Your task to perform on an android device: Open location settings Image 0: 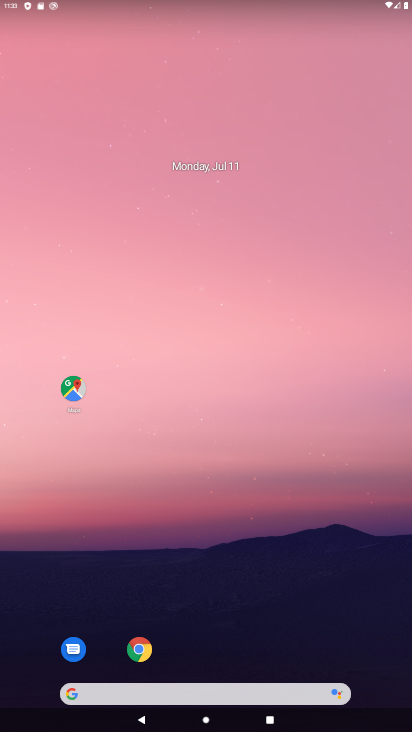
Step 0: drag from (303, 597) to (405, 46)
Your task to perform on an android device: Open location settings Image 1: 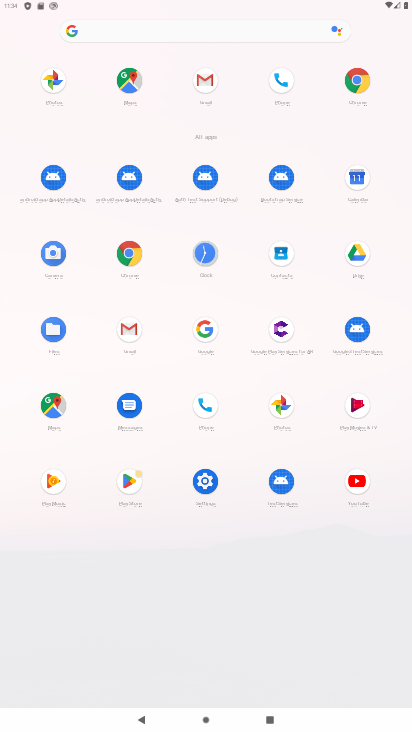
Step 1: click (203, 489)
Your task to perform on an android device: Open location settings Image 2: 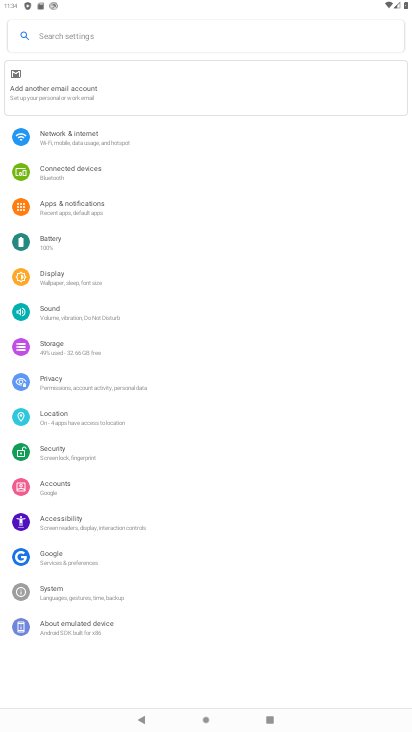
Step 2: click (69, 428)
Your task to perform on an android device: Open location settings Image 3: 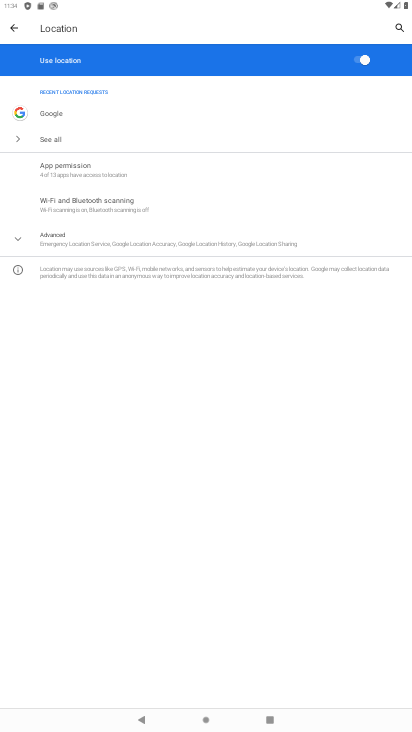
Step 3: task complete